Your task to perform on an android device: What is the news today? Image 0: 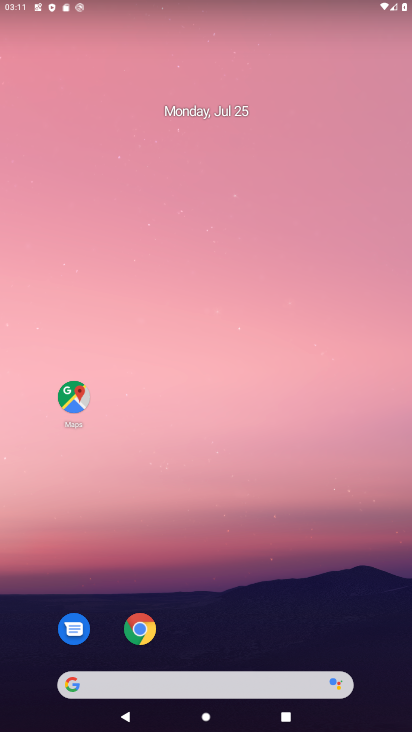
Step 0: click (141, 680)
Your task to perform on an android device: What is the news today? Image 1: 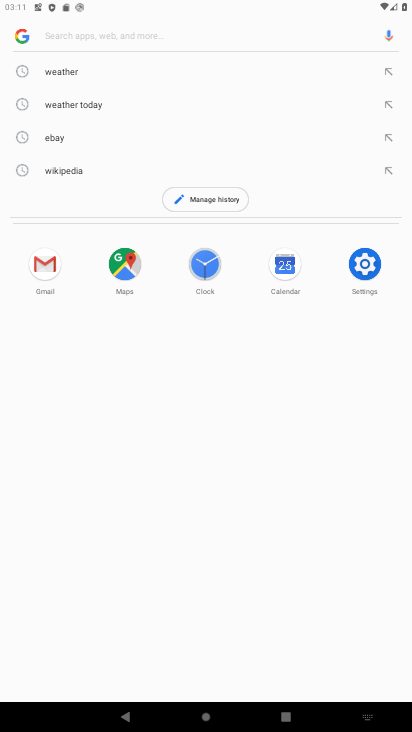
Step 1: type "news today"
Your task to perform on an android device: What is the news today? Image 2: 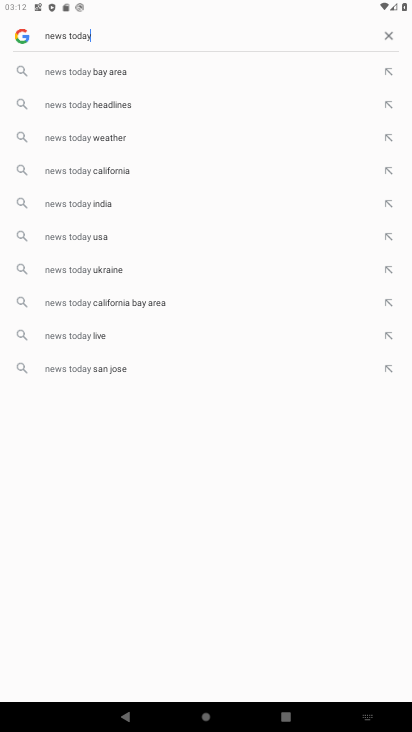
Step 2: click (73, 202)
Your task to perform on an android device: What is the news today? Image 3: 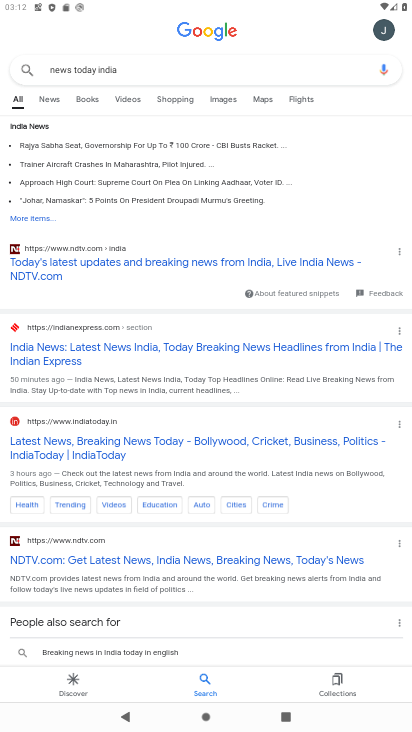
Step 3: click (43, 104)
Your task to perform on an android device: What is the news today? Image 4: 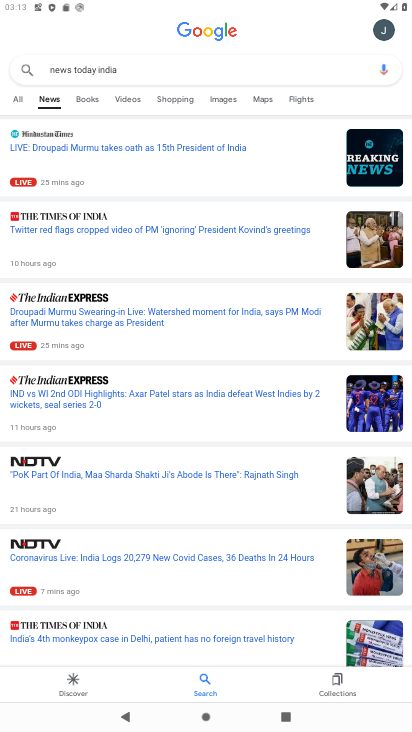
Step 4: task complete